Your task to perform on an android device: Go to notification settings Image 0: 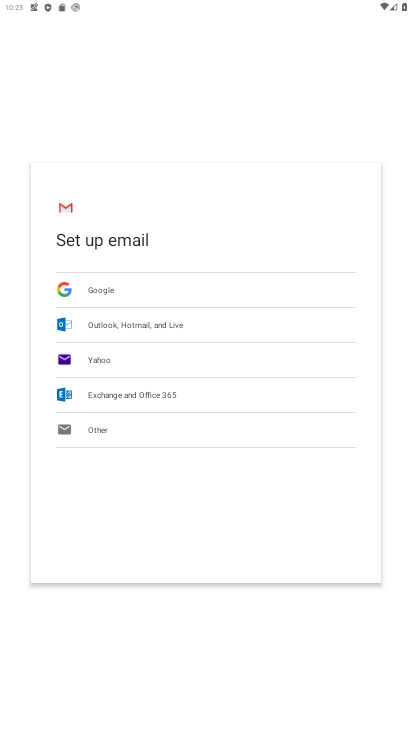
Step 0: press home button
Your task to perform on an android device: Go to notification settings Image 1: 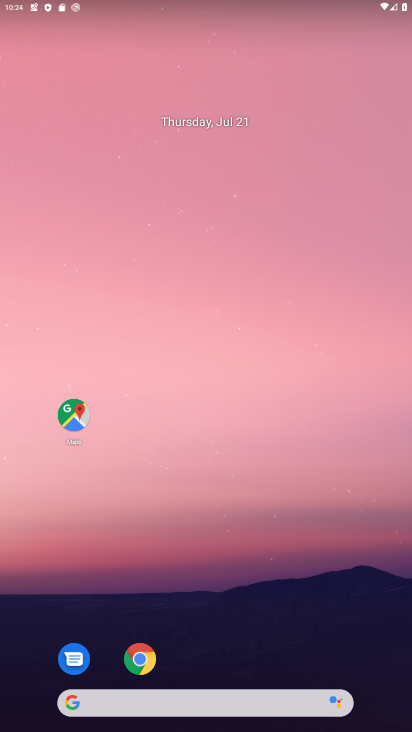
Step 1: drag from (271, 579) to (314, 0)
Your task to perform on an android device: Go to notification settings Image 2: 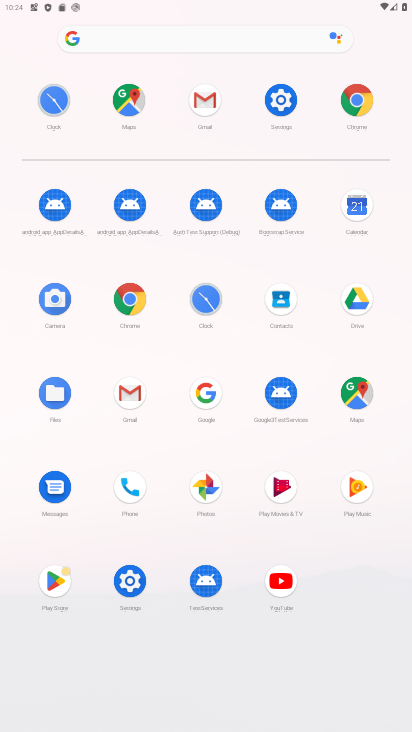
Step 2: click (288, 99)
Your task to perform on an android device: Go to notification settings Image 3: 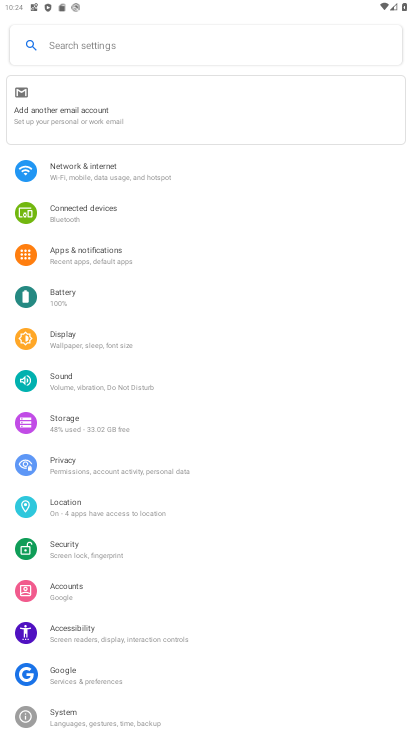
Step 3: click (73, 252)
Your task to perform on an android device: Go to notification settings Image 4: 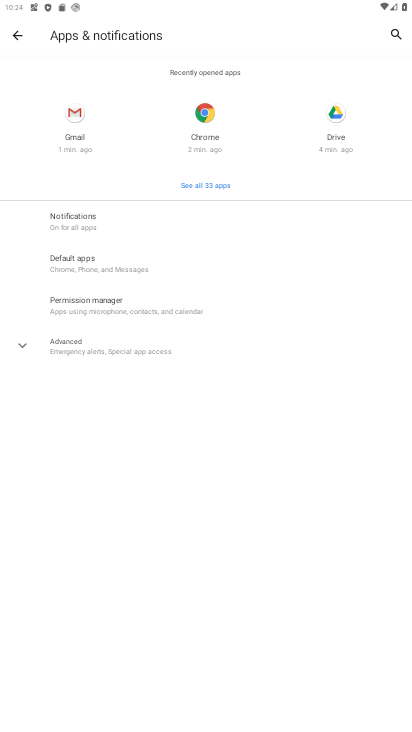
Step 4: click (81, 222)
Your task to perform on an android device: Go to notification settings Image 5: 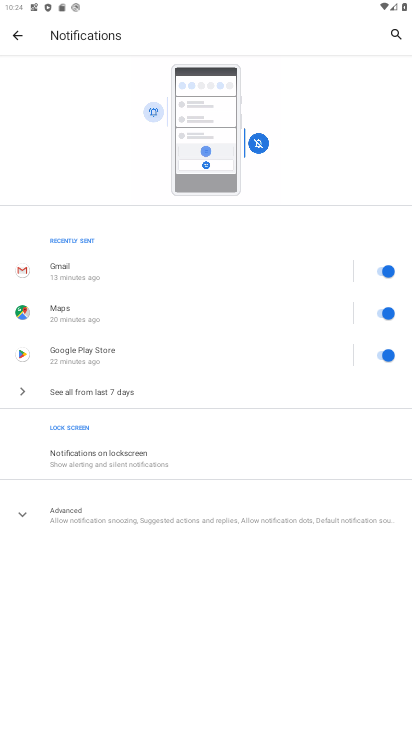
Step 5: task complete